Your task to perform on an android device: read, delete, or share a saved page in the chrome app Image 0: 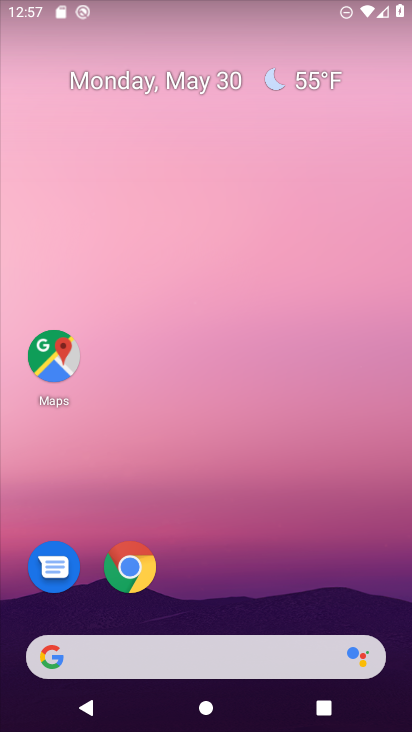
Step 0: press home button
Your task to perform on an android device: read, delete, or share a saved page in the chrome app Image 1: 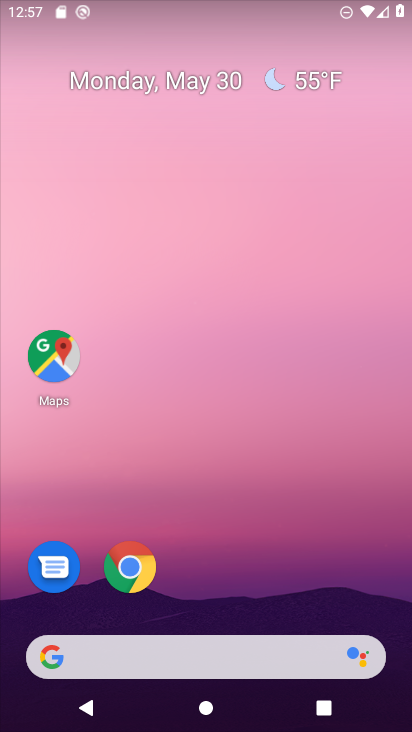
Step 1: click (130, 554)
Your task to perform on an android device: read, delete, or share a saved page in the chrome app Image 2: 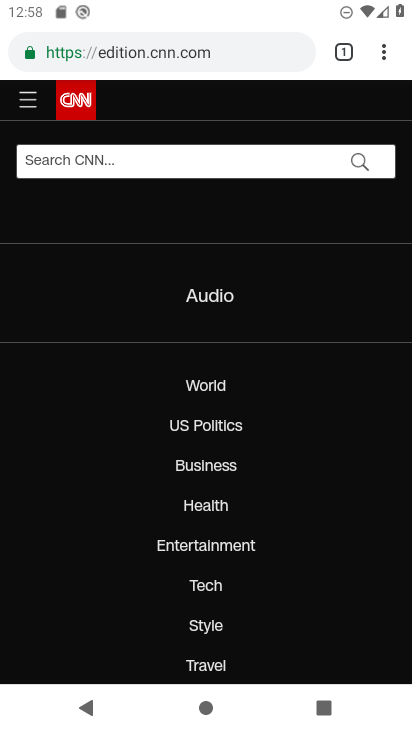
Step 2: click (374, 42)
Your task to perform on an android device: read, delete, or share a saved page in the chrome app Image 3: 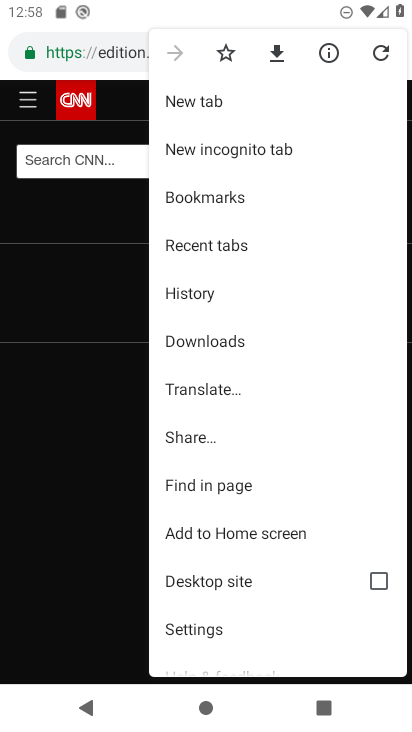
Step 3: click (259, 331)
Your task to perform on an android device: read, delete, or share a saved page in the chrome app Image 4: 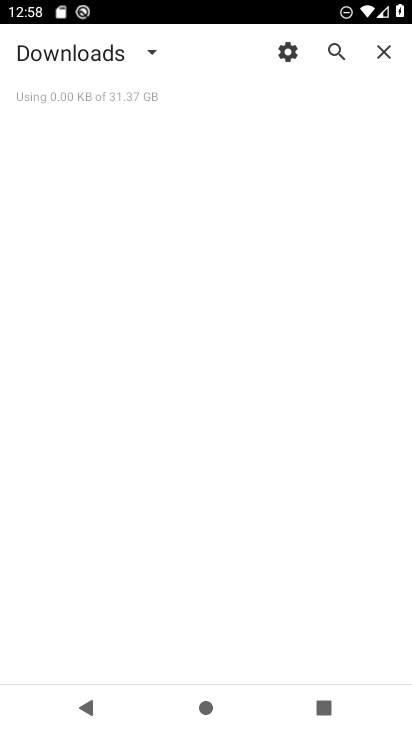
Step 4: task complete